Your task to perform on an android device: turn off sleep mode Image 0: 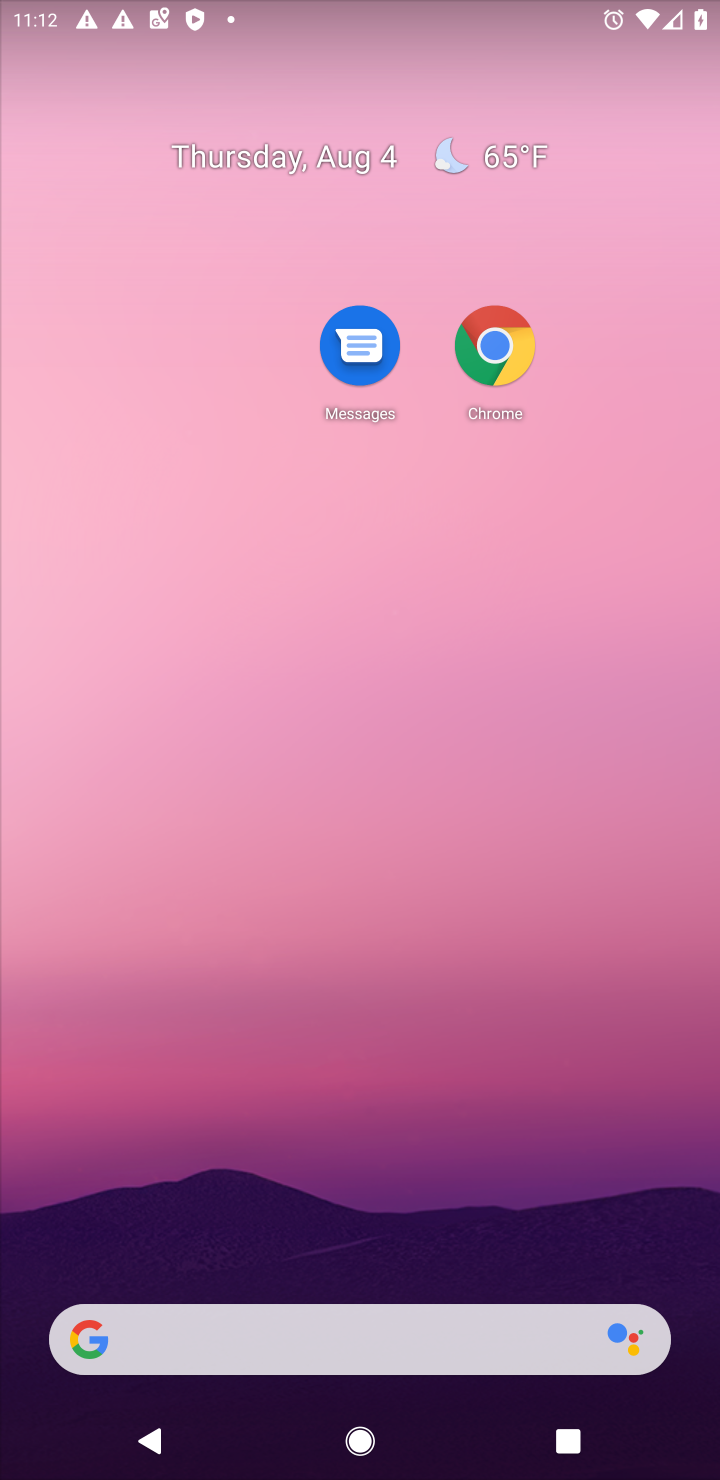
Step 0: drag from (367, 1126) to (513, 47)
Your task to perform on an android device: turn off sleep mode Image 1: 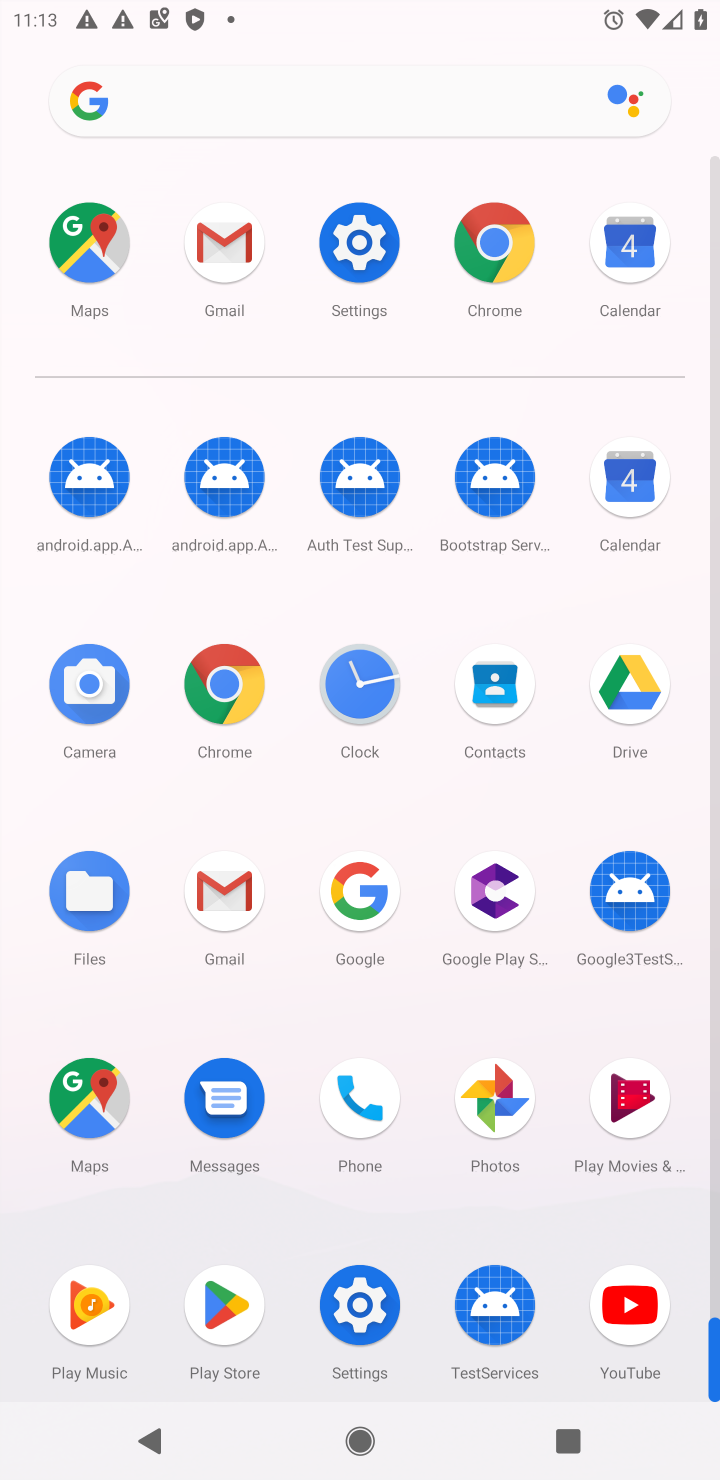
Step 1: click (385, 261)
Your task to perform on an android device: turn off sleep mode Image 2: 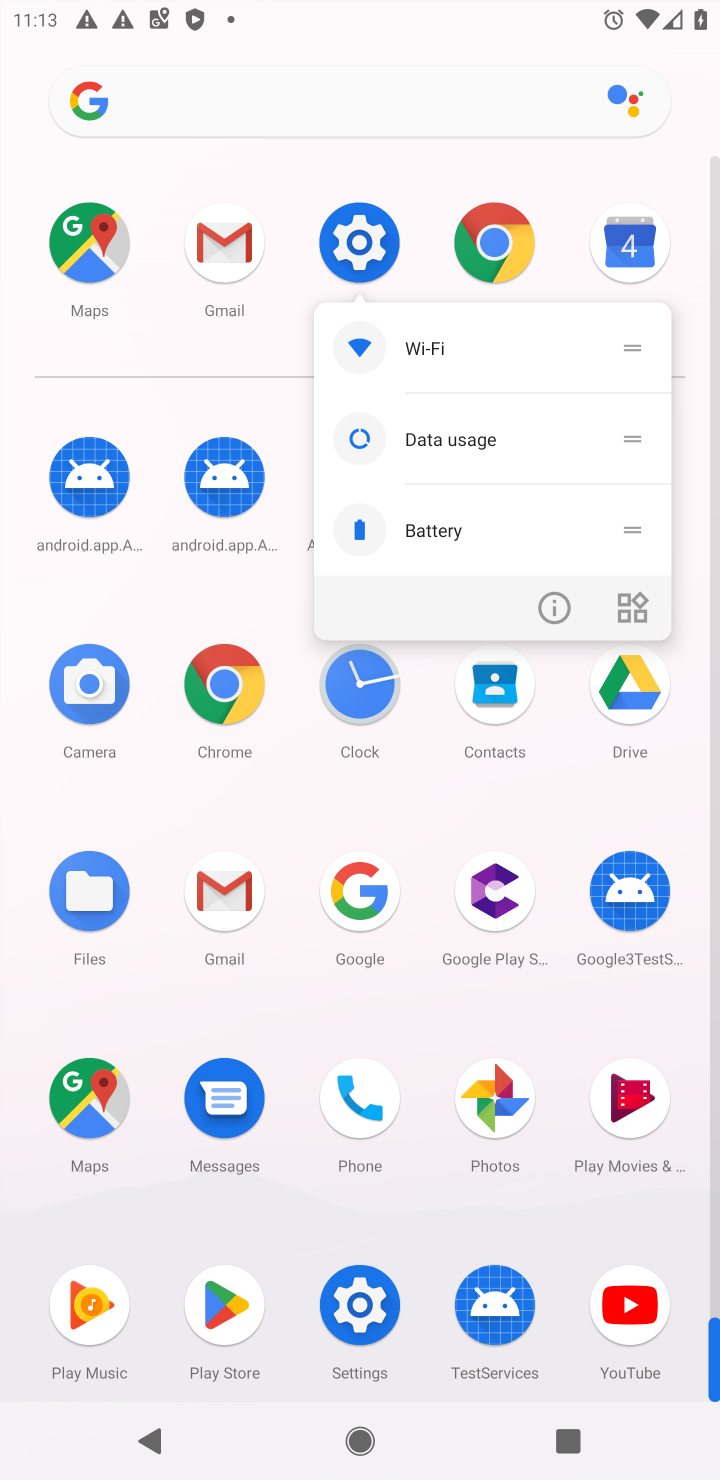
Step 2: click (382, 260)
Your task to perform on an android device: turn off sleep mode Image 3: 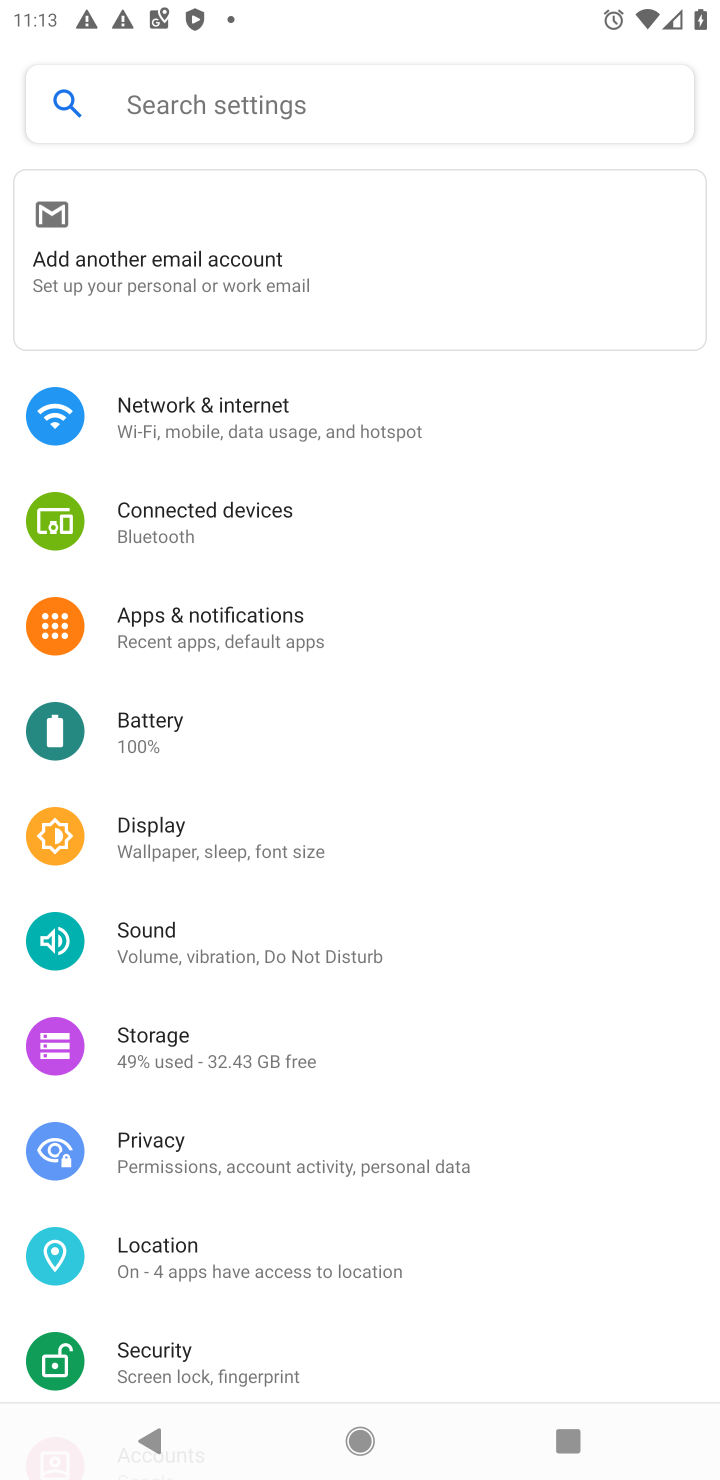
Step 3: drag from (222, 1255) to (254, 419)
Your task to perform on an android device: turn off sleep mode Image 4: 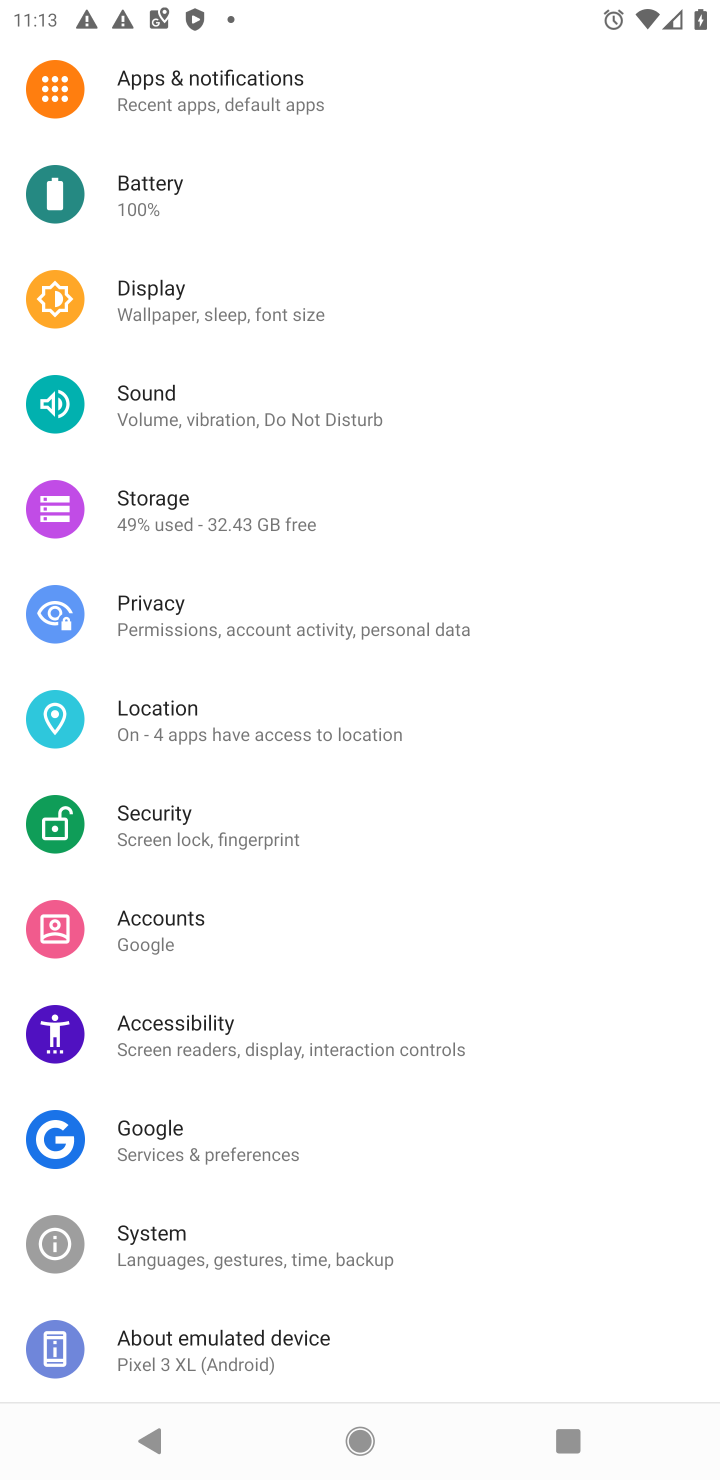
Step 4: click (141, 310)
Your task to perform on an android device: turn off sleep mode Image 5: 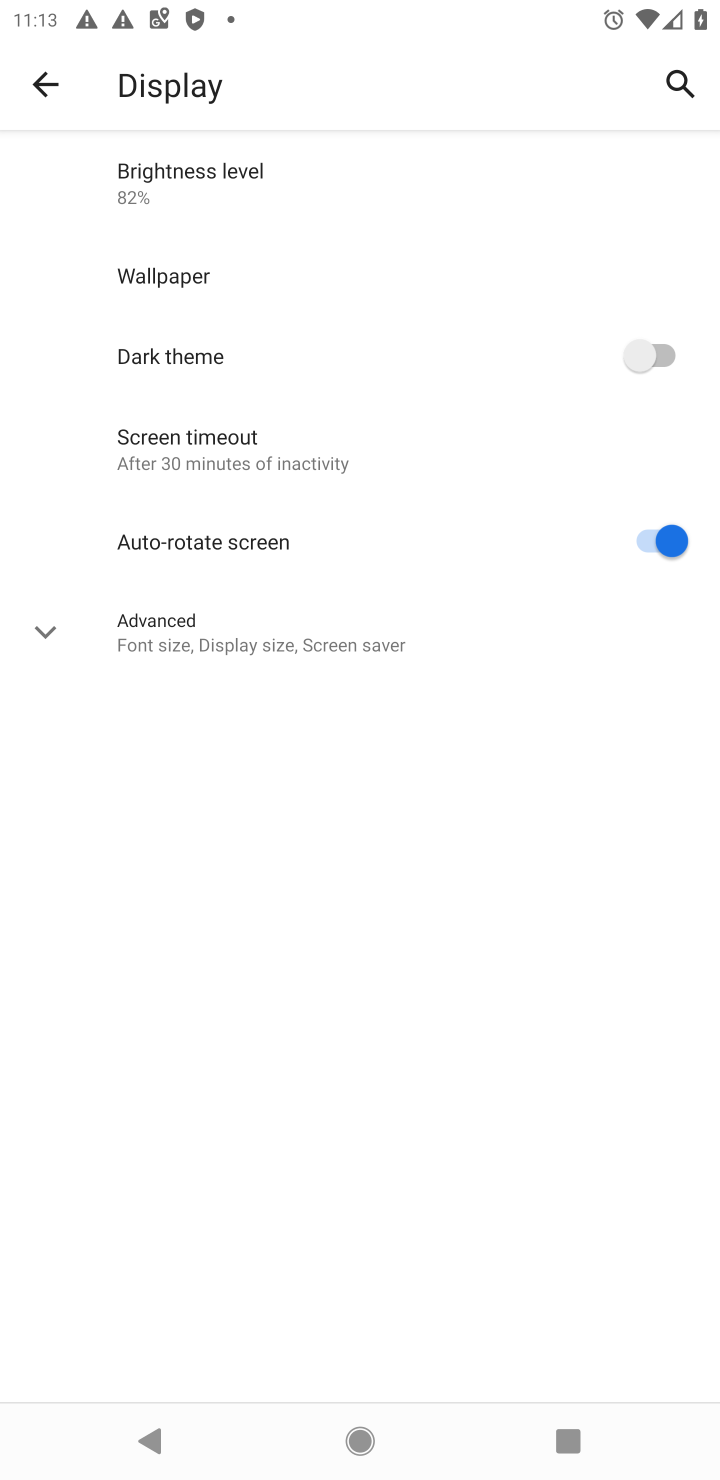
Step 5: click (239, 469)
Your task to perform on an android device: turn off sleep mode Image 6: 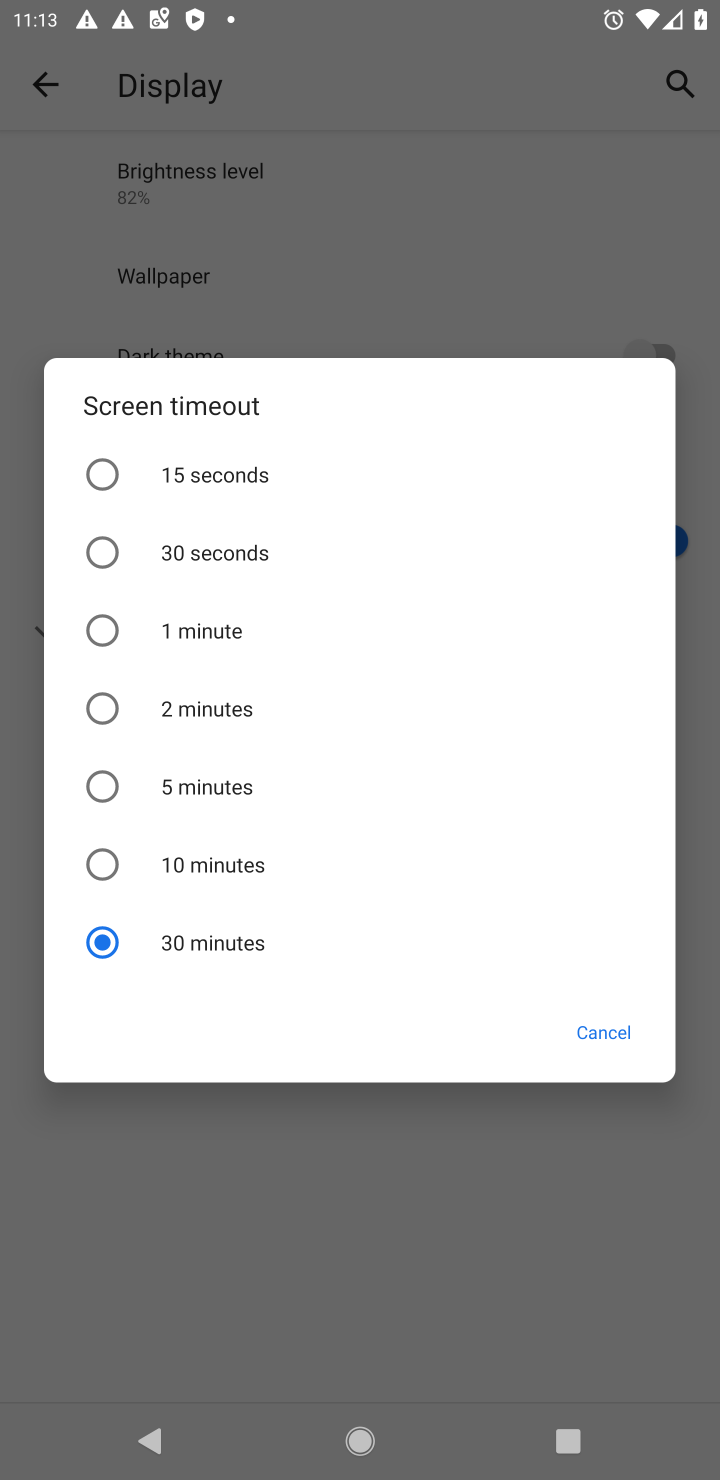
Step 6: task complete